Your task to perform on an android device: Open settings Image 0: 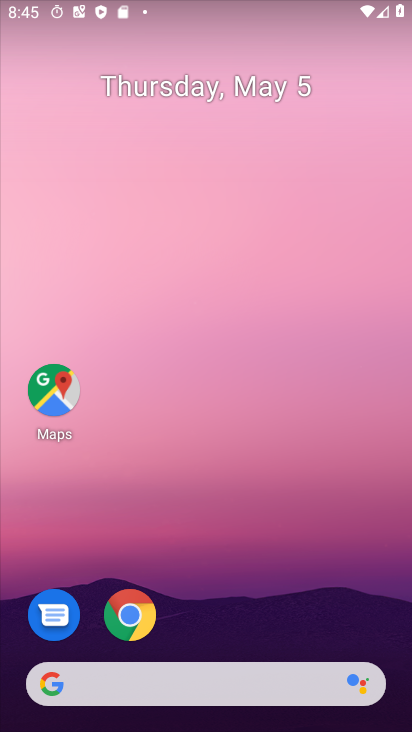
Step 0: drag from (191, 616) to (261, 190)
Your task to perform on an android device: Open settings Image 1: 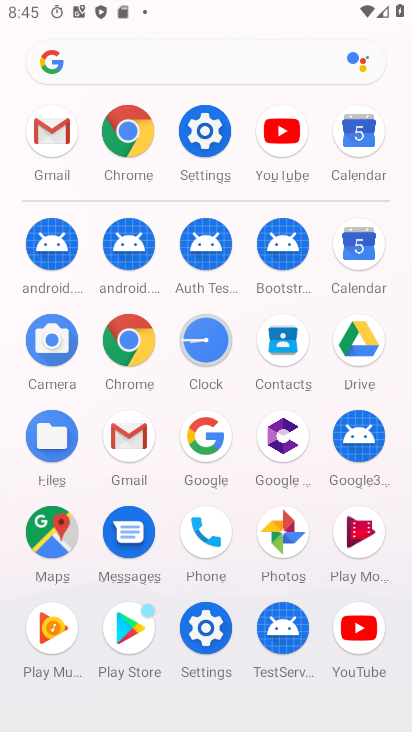
Step 1: click (217, 163)
Your task to perform on an android device: Open settings Image 2: 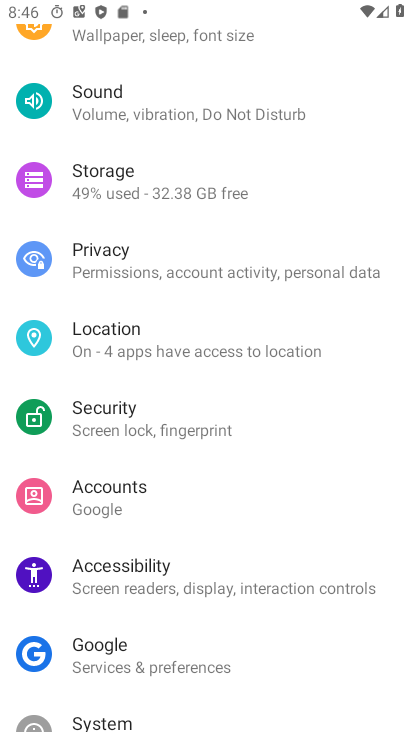
Step 2: task complete